Your task to perform on an android device: turn off airplane mode Image 0: 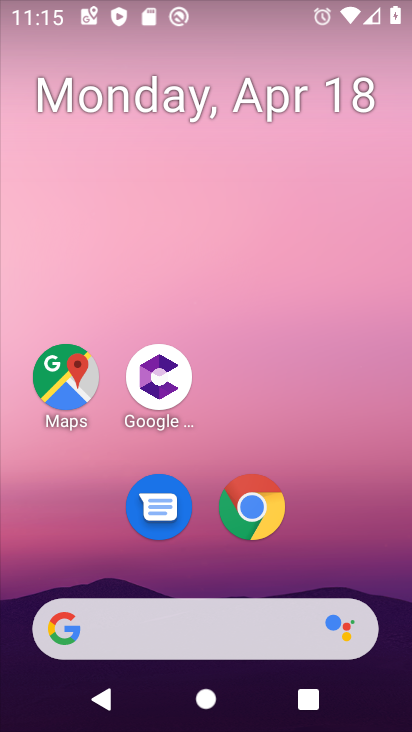
Step 0: drag from (281, 664) to (330, 131)
Your task to perform on an android device: turn off airplane mode Image 1: 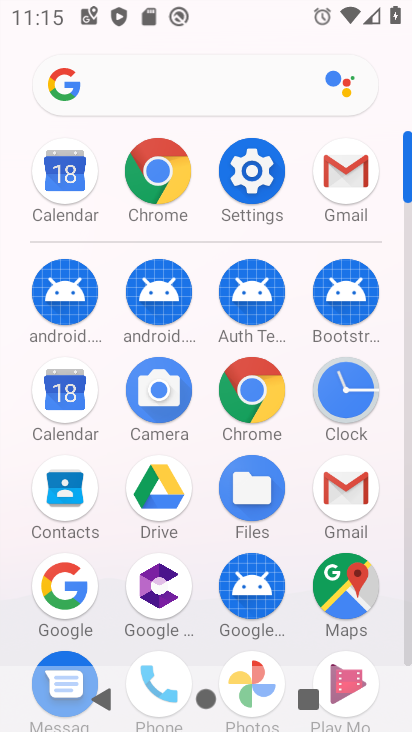
Step 1: click (263, 191)
Your task to perform on an android device: turn off airplane mode Image 2: 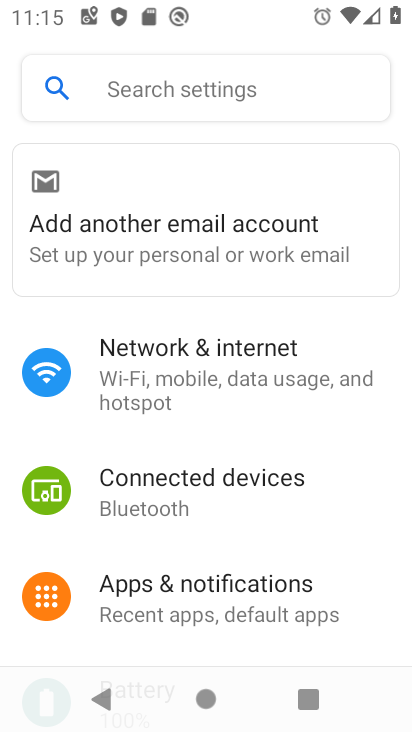
Step 2: click (183, 357)
Your task to perform on an android device: turn off airplane mode Image 3: 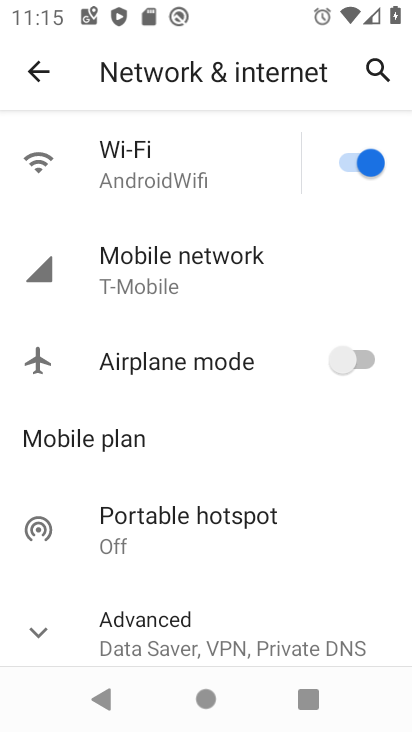
Step 3: click (215, 358)
Your task to perform on an android device: turn off airplane mode Image 4: 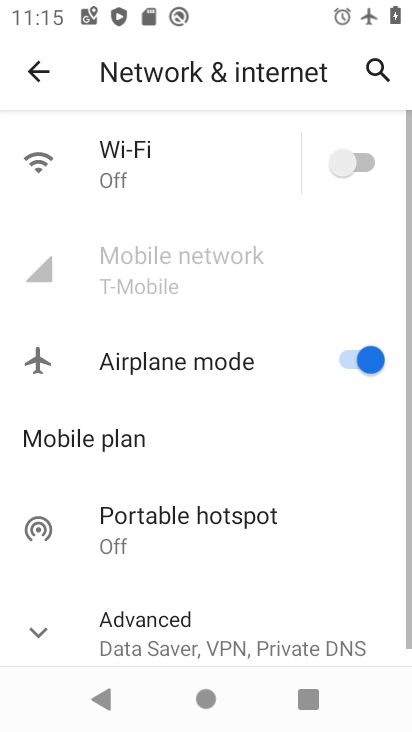
Step 4: click (215, 358)
Your task to perform on an android device: turn off airplane mode Image 5: 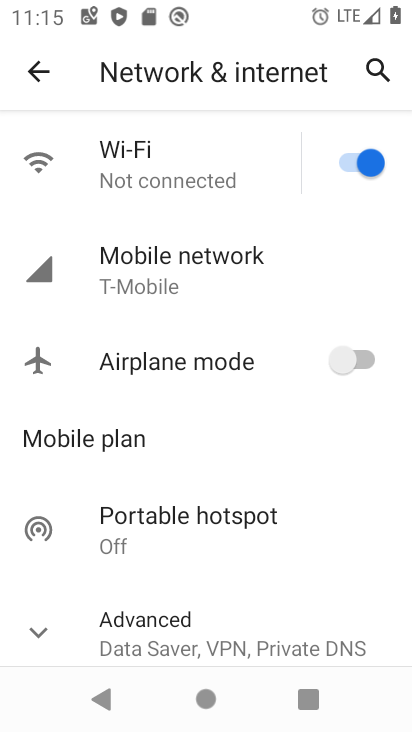
Step 5: task complete